Your task to perform on an android device: Go to sound settings Image 0: 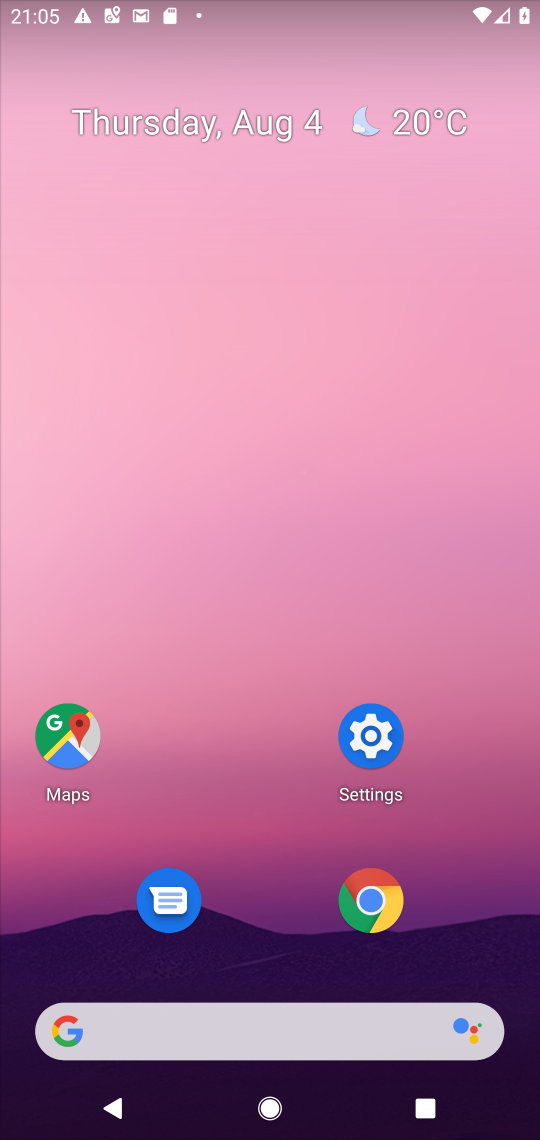
Step 0: press home button
Your task to perform on an android device: Go to sound settings Image 1: 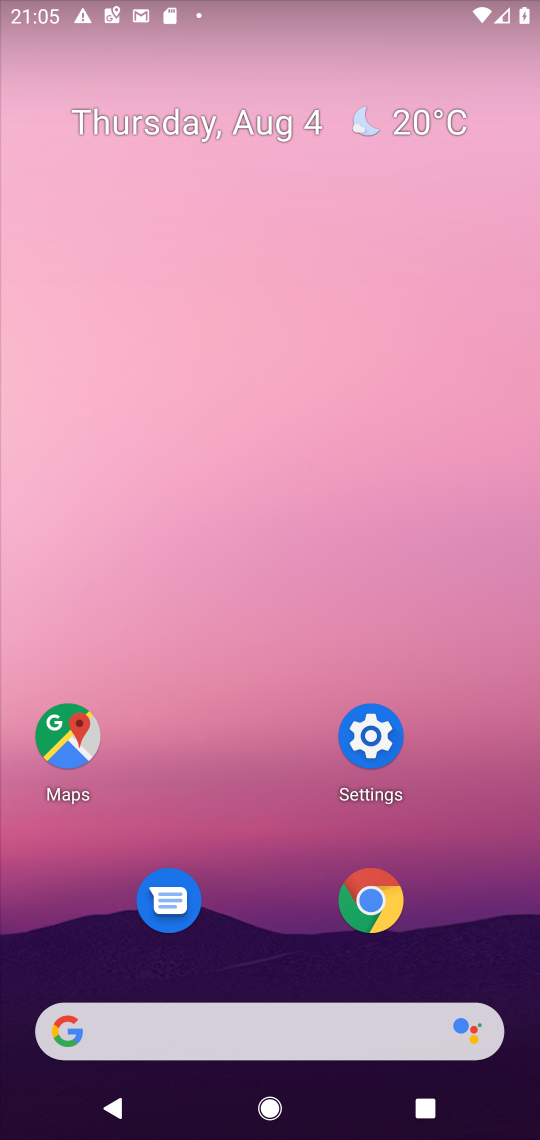
Step 1: drag from (279, 904) to (514, 125)
Your task to perform on an android device: Go to sound settings Image 2: 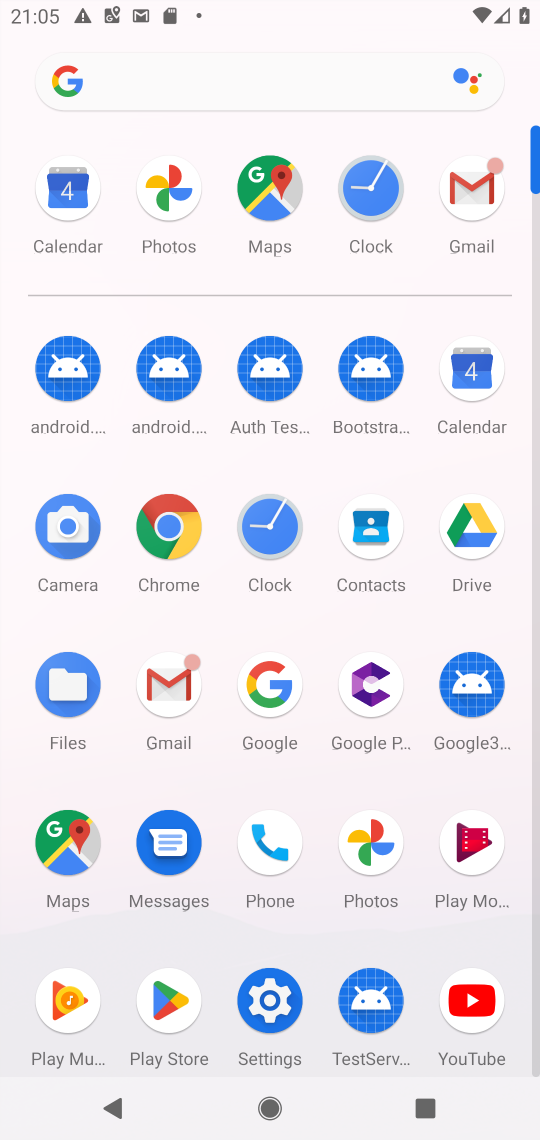
Step 2: click (270, 999)
Your task to perform on an android device: Go to sound settings Image 3: 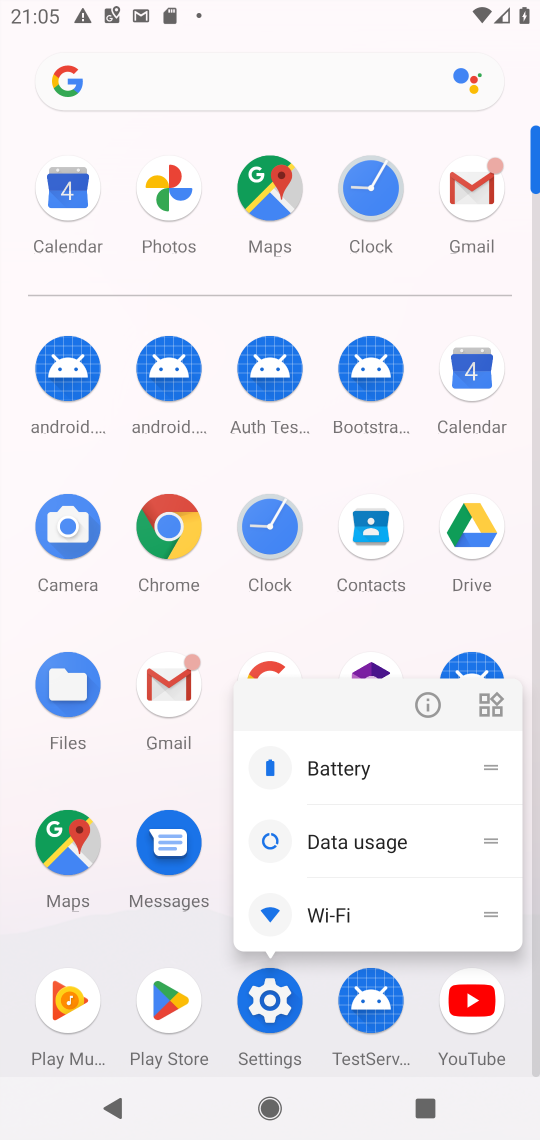
Step 3: click (262, 1011)
Your task to perform on an android device: Go to sound settings Image 4: 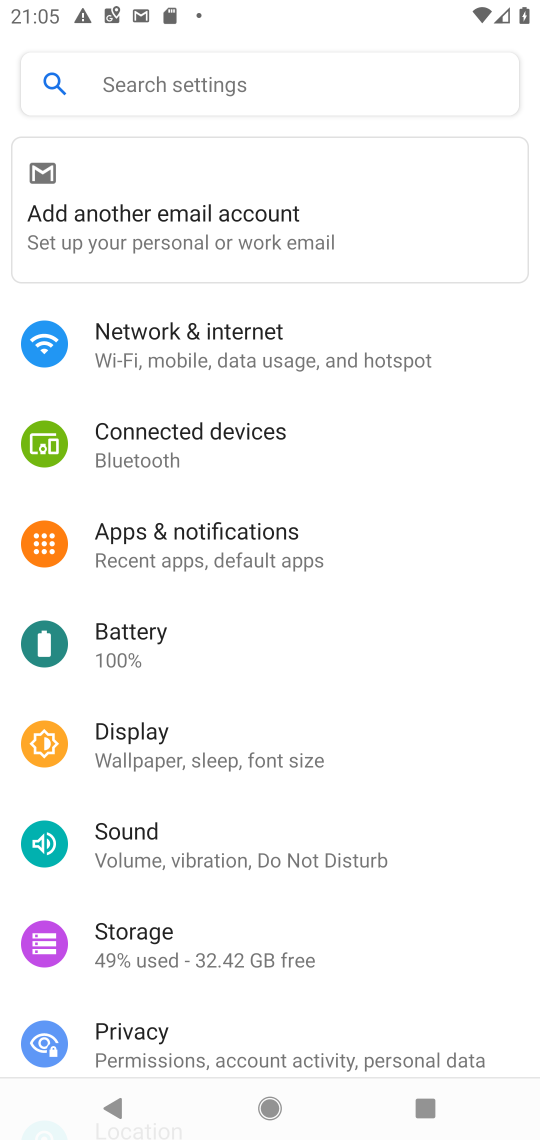
Step 4: click (163, 854)
Your task to perform on an android device: Go to sound settings Image 5: 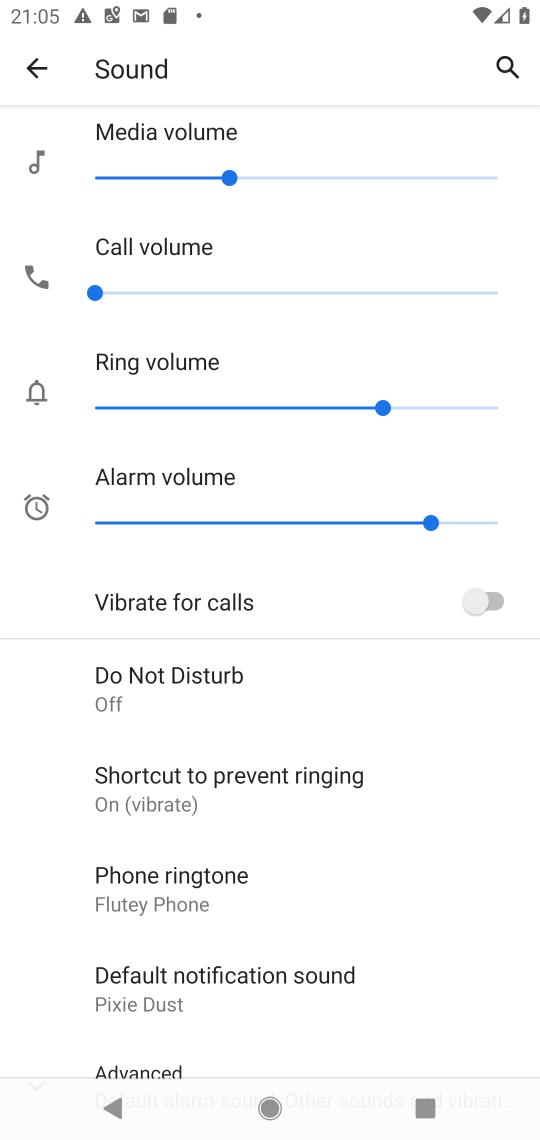
Step 5: task complete